Your task to perform on an android device: refresh tabs in the chrome app Image 0: 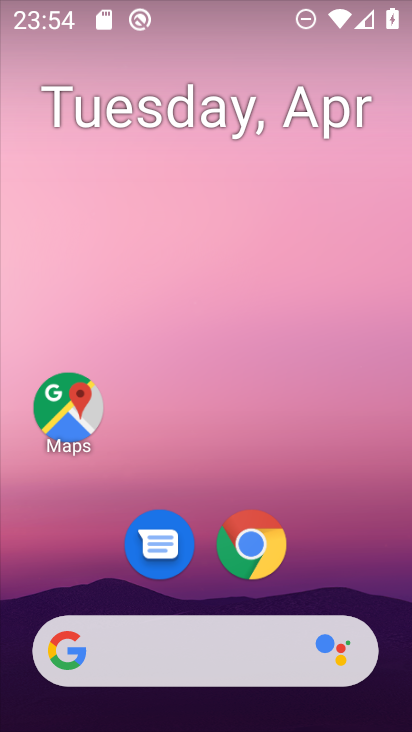
Step 0: click (251, 555)
Your task to perform on an android device: refresh tabs in the chrome app Image 1: 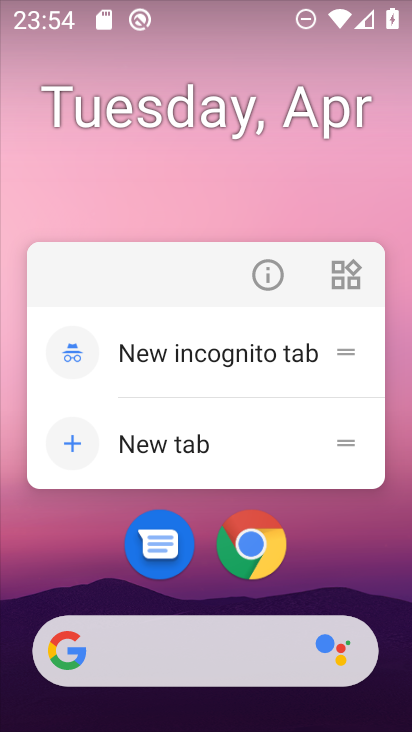
Step 1: click (280, 555)
Your task to perform on an android device: refresh tabs in the chrome app Image 2: 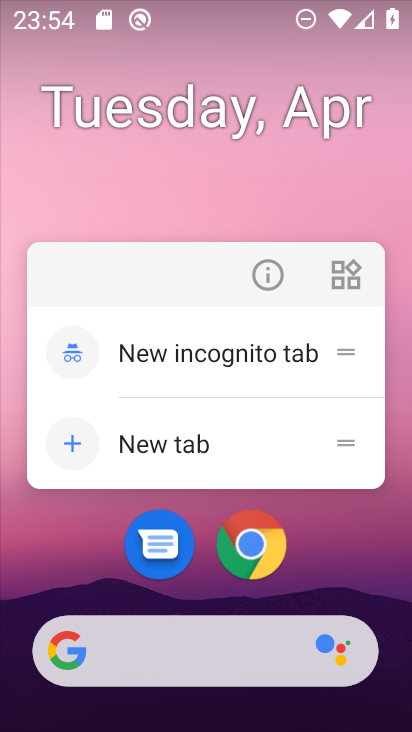
Step 2: click (273, 549)
Your task to perform on an android device: refresh tabs in the chrome app Image 3: 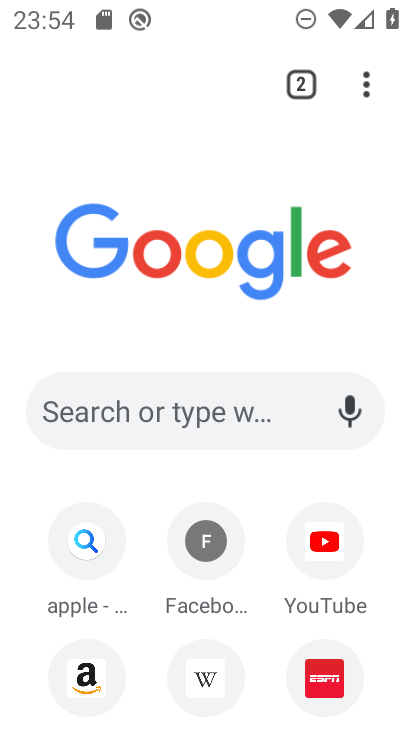
Step 3: click (365, 80)
Your task to perform on an android device: refresh tabs in the chrome app Image 4: 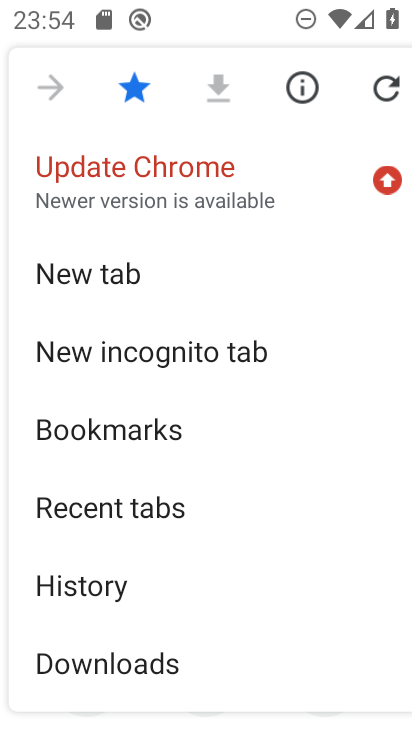
Step 4: click (388, 89)
Your task to perform on an android device: refresh tabs in the chrome app Image 5: 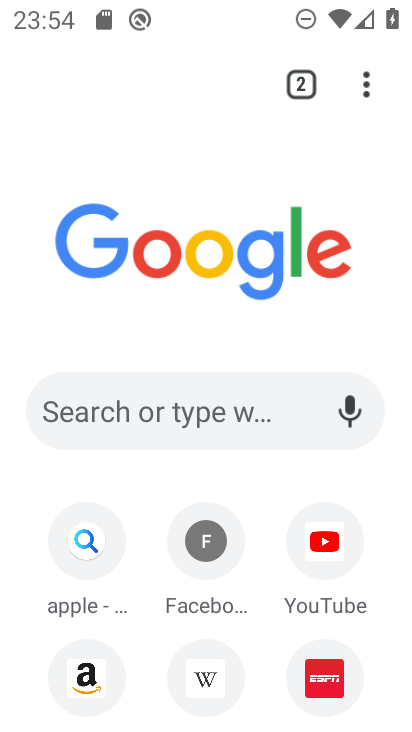
Step 5: task complete